Your task to perform on an android device: Open calendar and show me the third week of next month Image 0: 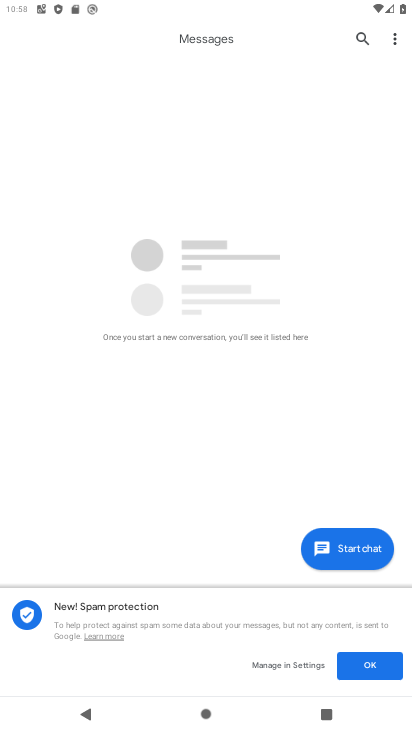
Step 0: press back button
Your task to perform on an android device: Open calendar and show me the third week of next month Image 1: 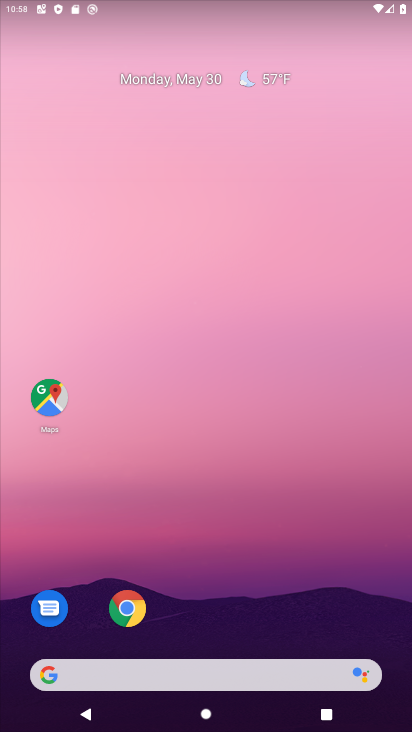
Step 1: drag from (299, 554) to (235, 15)
Your task to perform on an android device: Open calendar and show me the third week of next month Image 2: 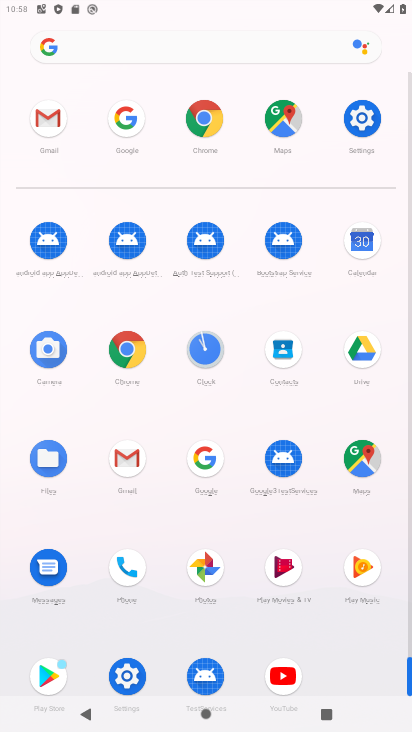
Step 2: drag from (12, 514) to (19, 185)
Your task to perform on an android device: Open calendar and show me the third week of next month Image 3: 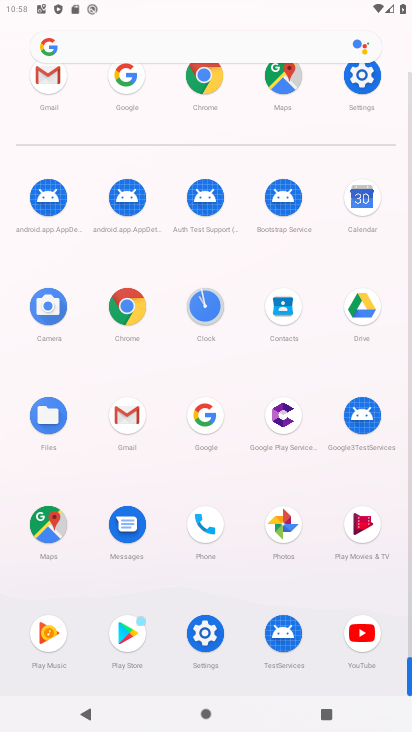
Step 3: click (360, 194)
Your task to perform on an android device: Open calendar and show me the third week of next month Image 4: 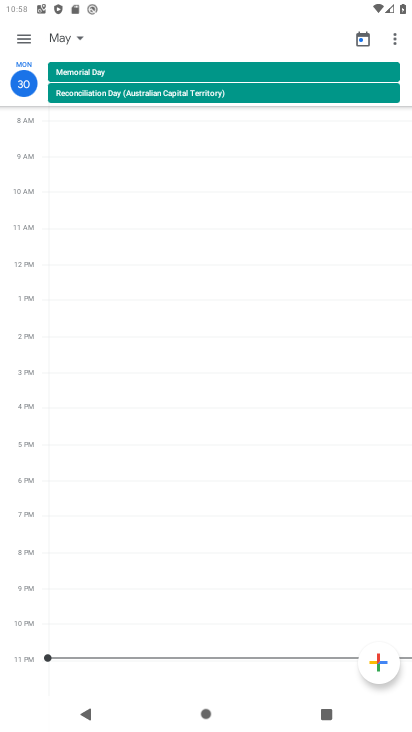
Step 4: click (26, 37)
Your task to perform on an android device: Open calendar and show me the third week of next month Image 5: 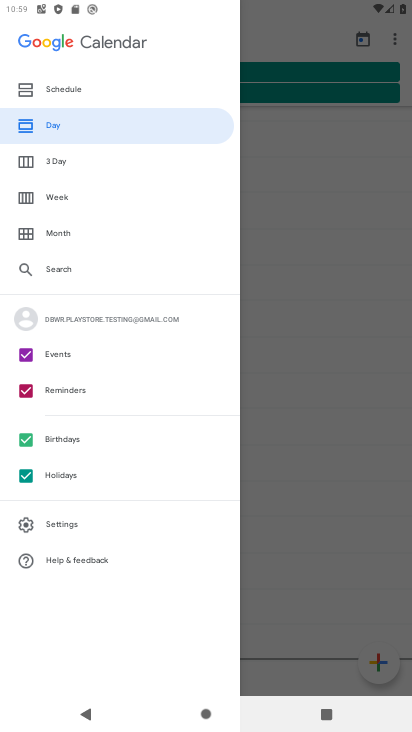
Step 5: click (62, 190)
Your task to perform on an android device: Open calendar and show me the third week of next month Image 6: 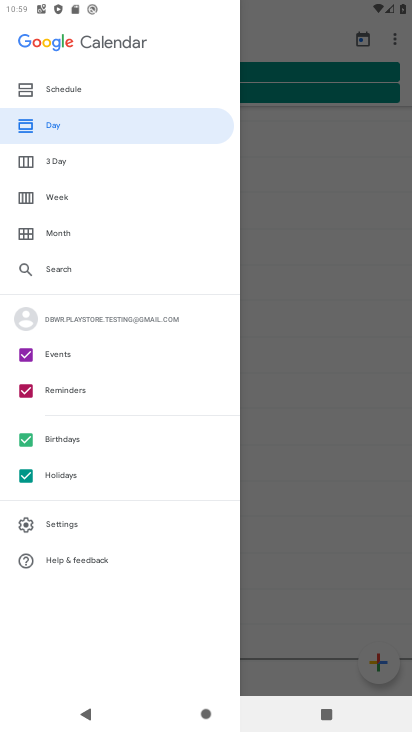
Step 6: click (68, 229)
Your task to perform on an android device: Open calendar and show me the third week of next month Image 7: 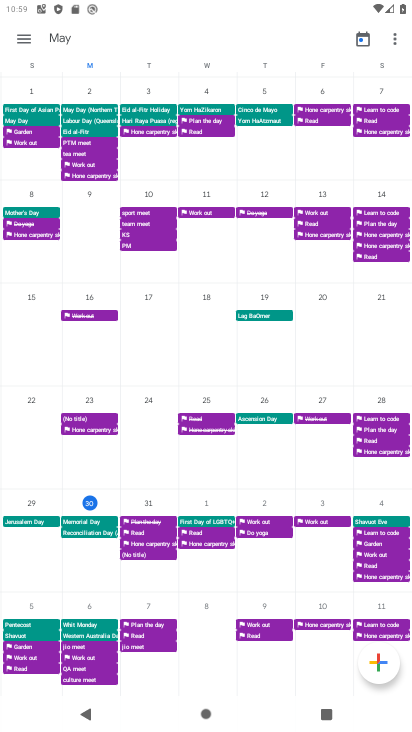
Step 7: drag from (375, 244) to (21, 245)
Your task to perform on an android device: Open calendar and show me the third week of next month Image 8: 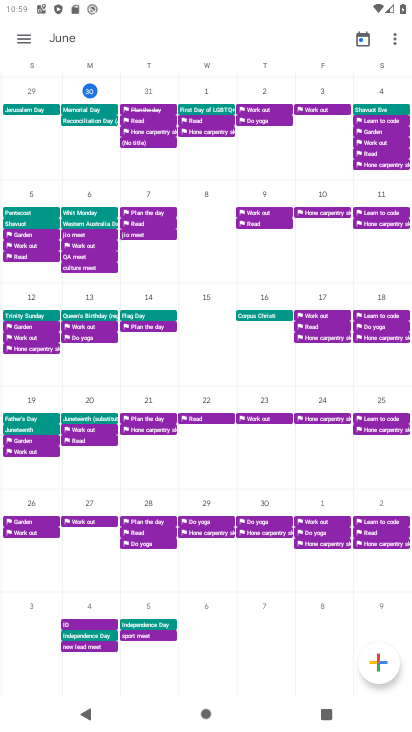
Step 8: click (20, 39)
Your task to perform on an android device: Open calendar and show me the third week of next month Image 9: 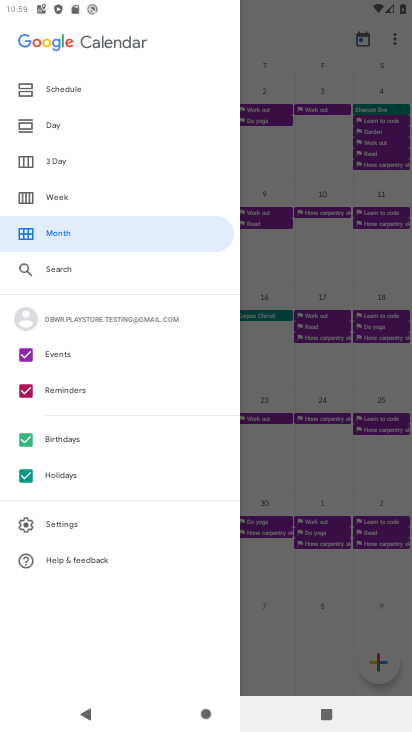
Step 9: click (397, 275)
Your task to perform on an android device: Open calendar and show me the third week of next month Image 10: 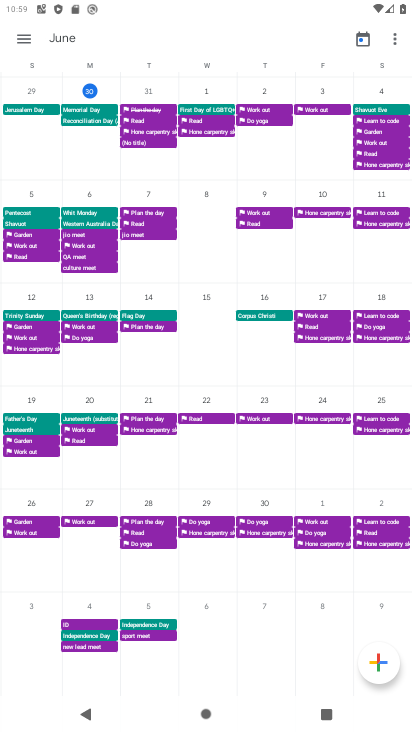
Step 10: click (39, 394)
Your task to perform on an android device: Open calendar and show me the third week of next month Image 11: 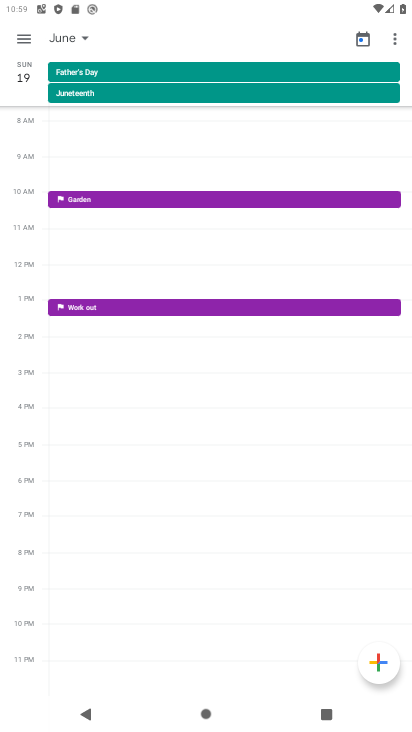
Step 11: click (26, 36)
Your task to perform on an android device: Open calendar and show me the third week of next month Image 12: 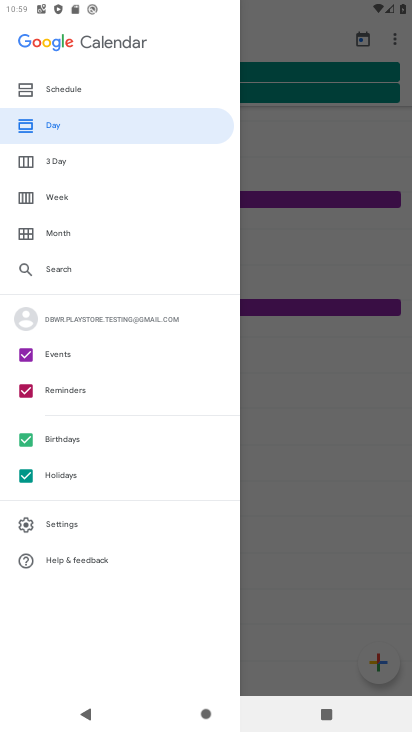
Step 12: click (68, 190)
Your task to perform on an android device: Open calendar and show me the third week of next month Image 13: 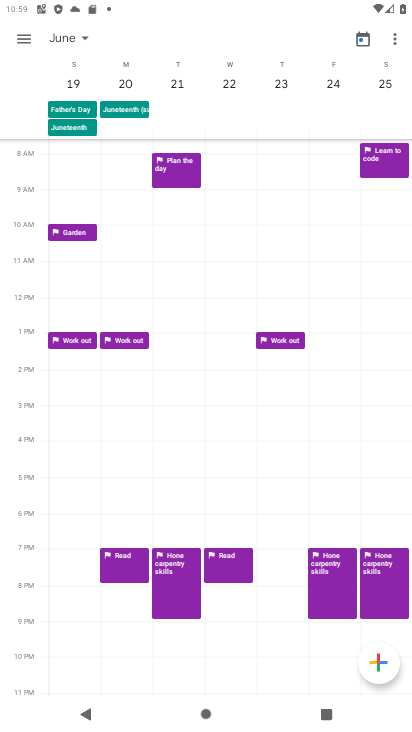
Step 13: task complete